Your task to perform on an android device: open chrome privacy settings Image 0: 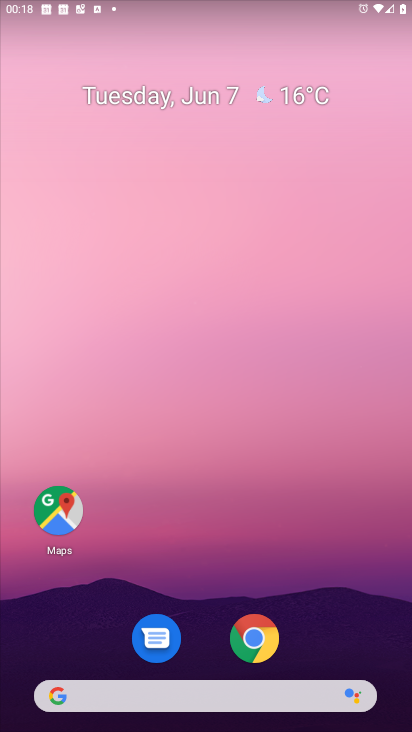
Step 0: drag from (286, 704) to (142, 124)
Your task to perform on an android device: open chrome privacy settings Image 1: 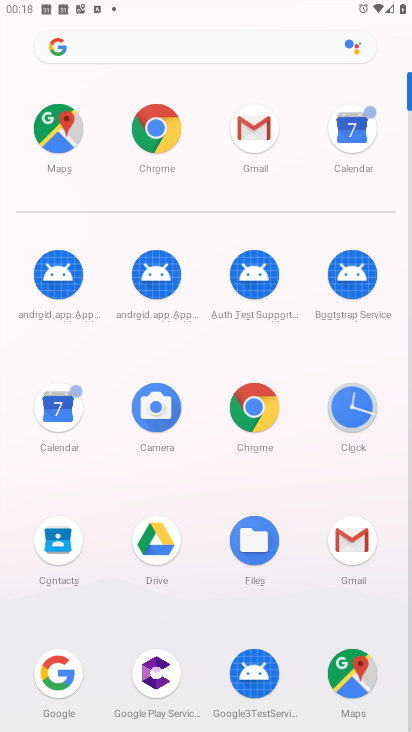
Step 1: drag from (209, 554) to (135, 292)
Your task to perform on an android device: open chrome privacy settings Image 2: 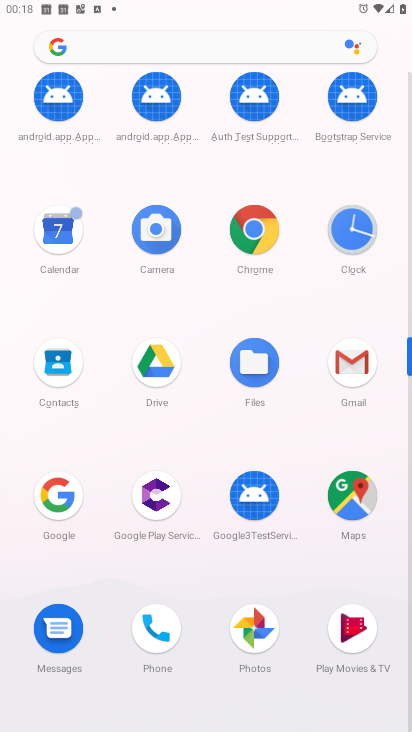
Step 2: drag from (212, 566) to (182, 445)
Your task to perform on an android device: open chrome privacy settings Image 3: 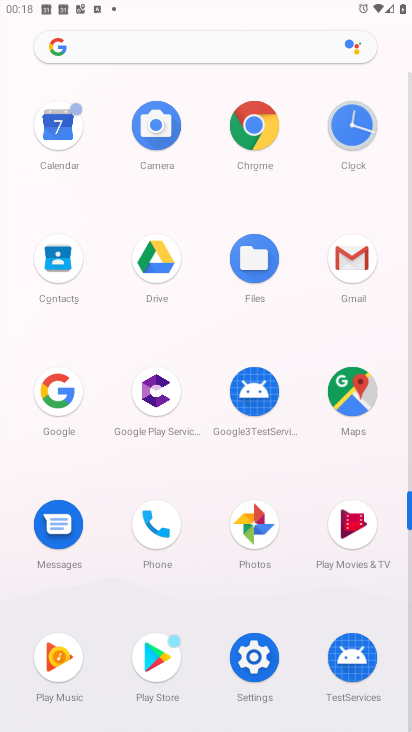
Step 3: click (248, 660)
Your task to perform on an android device: open chrome privacy settings Image 4: 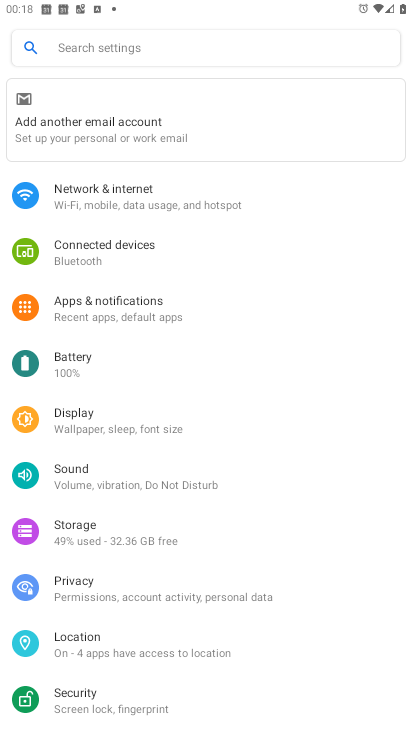
Step 4: click (120, 643)
Your task to perform on an android device: open chrome privacy settings Image 5: 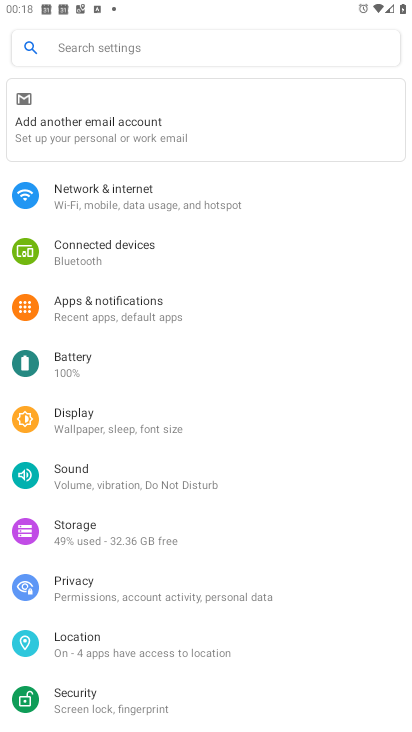
Step 5: press home button
Your task to perform on an android device: open chrome privacy settings Image 6: 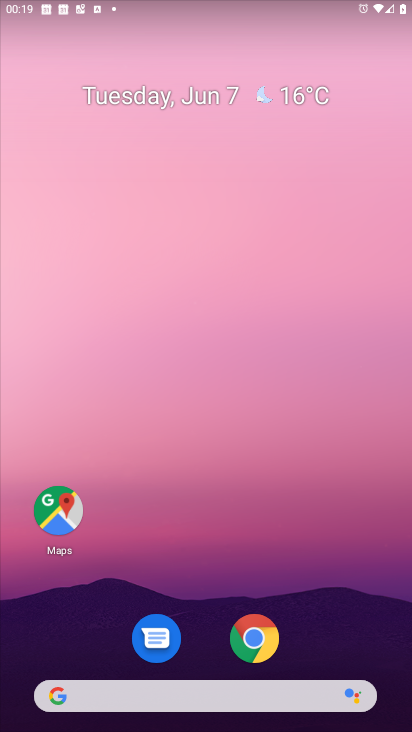
Step 6: drag from (251, 685) to (186, 176)
Your task to perform on an android device: open chrome privacy settings Image 7: 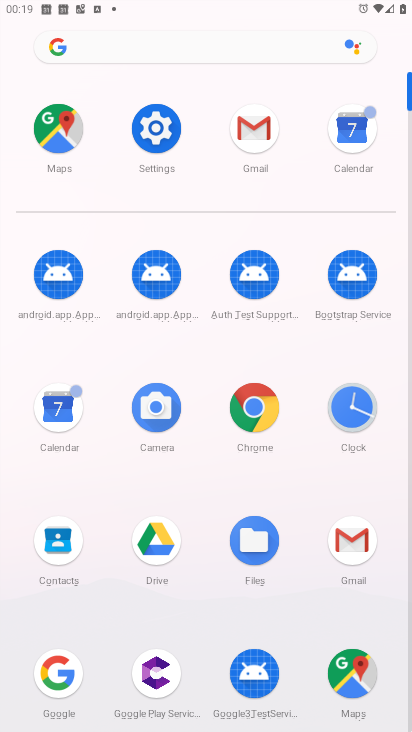
Step 7: click (255, 394)
Your task to perform on an android device: open chrome privacy settings Image 8: 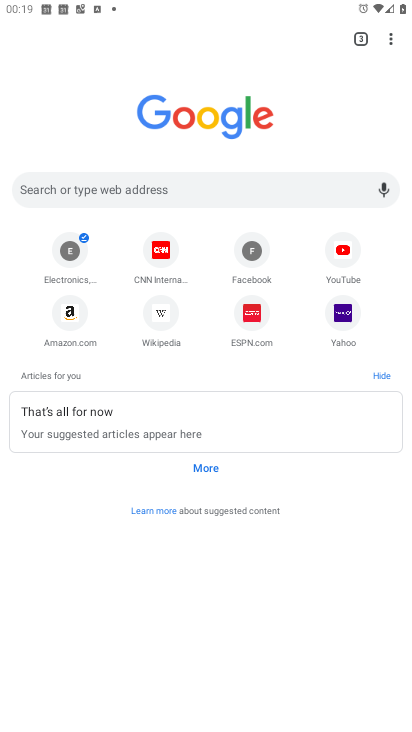
Step 8: click (387, 39)
Your task to perform on an android device: open chrome privacy settings Image 9: 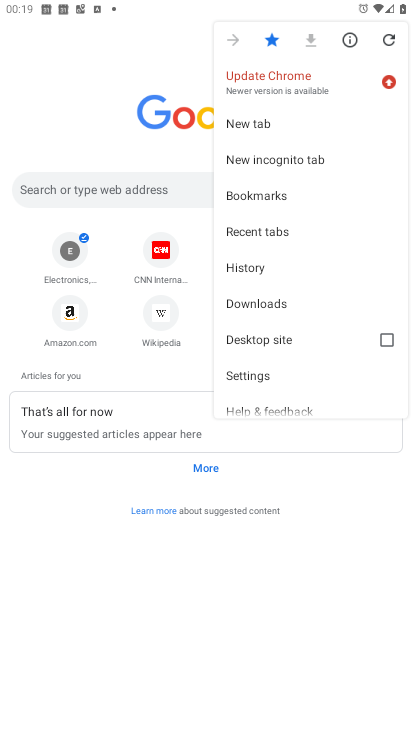
Step 9: click (243, 373)
Your task to perform on an android device: open chrome privacy settings Image 10: 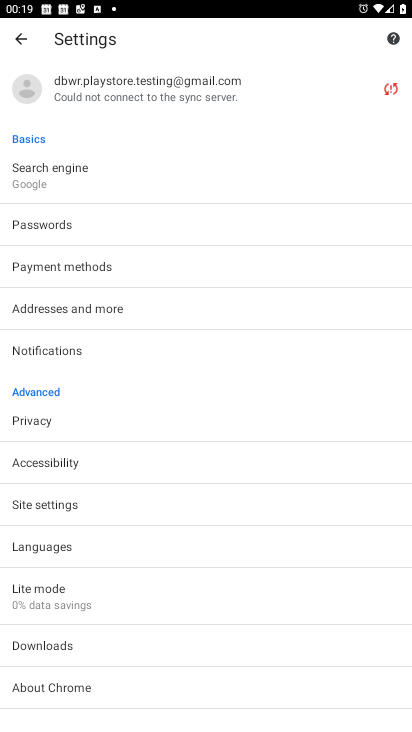
Step 10: click (44, 423)
Your task to perform on an android device: open chrome privacy settings Image 11: 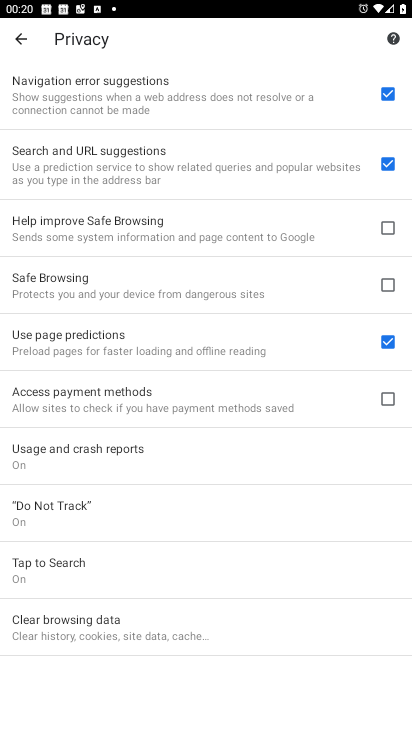
Step 11: task complete